Your task to perform on an android device: check data usage Image 0: 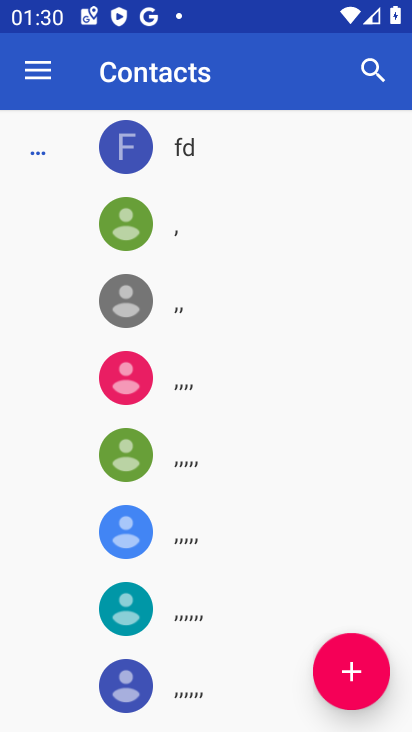
Step 0: press home button
Your task to perform on an android device: check data usage Image 1: 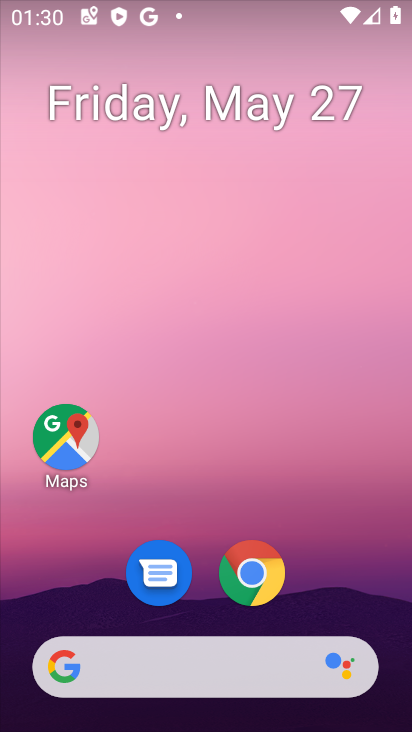
Step 1: drag from (239, 620) to (231, 0)
Your task to perform on an android device: check data usage Image 2: 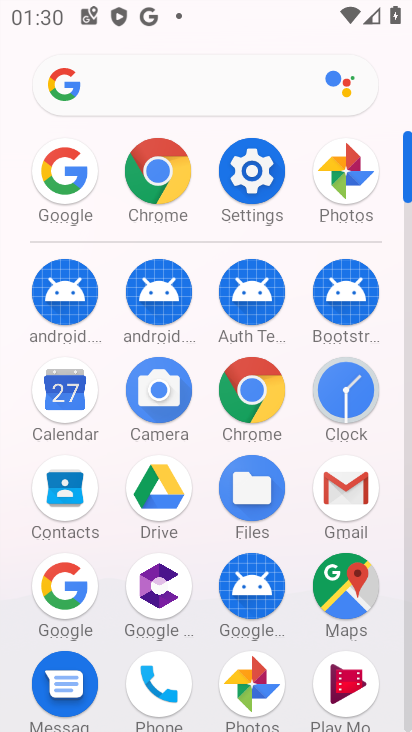
Step 2: click (252, 169)
Your task to perform on an android device: check data usage Image 3: 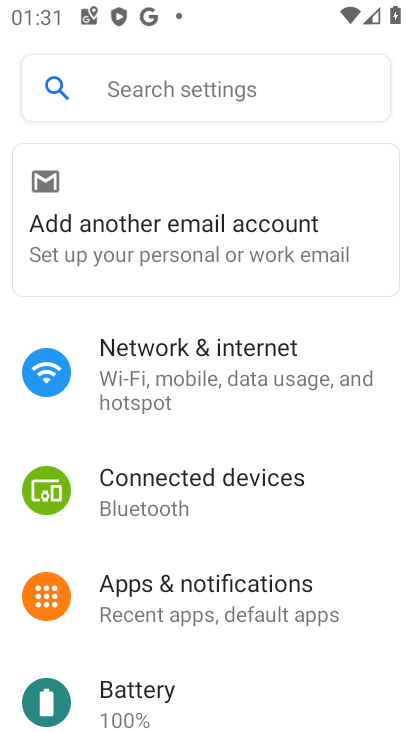
Step 3: click (188, 344)
Your task to perform on an android device: check data usage Image 4: 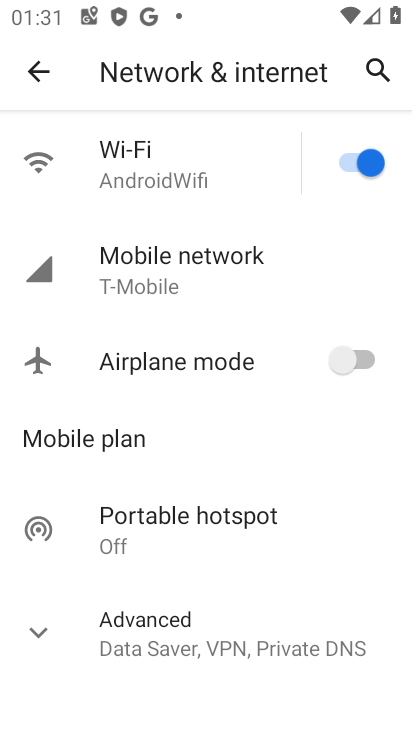
Step 4: click (185, 278)
Your task to perform on an android device: check data usage Image 5: 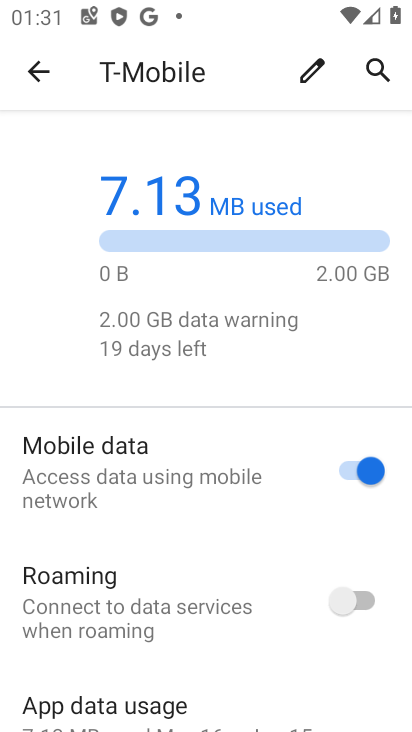
Step 5: task complete